Your task to perform on an android device: Open Amazon Image 0: 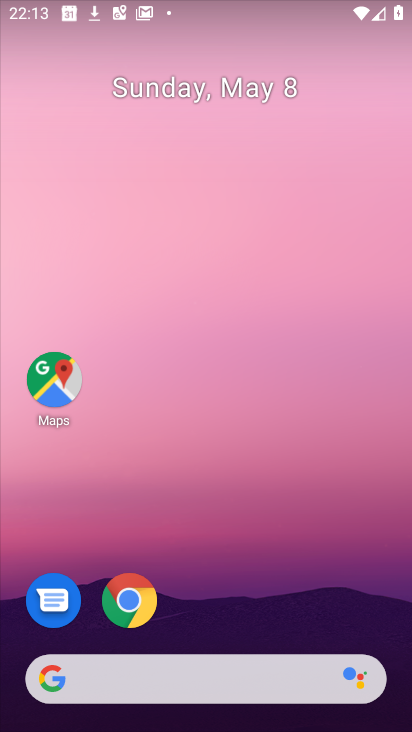
Step 0: drag from (248, 713) to (225, 216)
Your task to perform on an android device: Open Amazon Image 1: 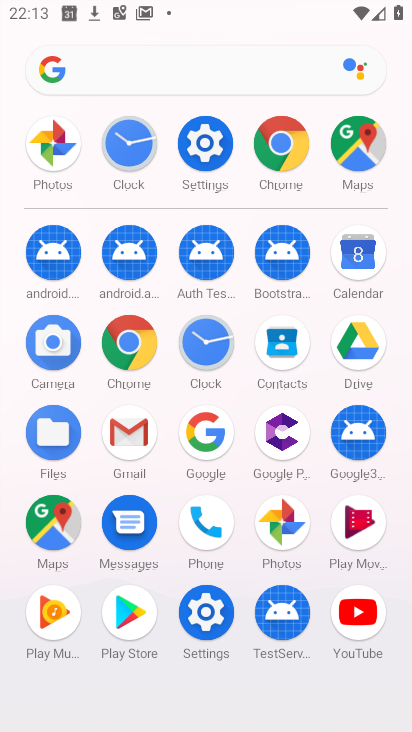
Step 1: click (289, 155)
Your task to perform on an android device: Open Amazon Image 2: 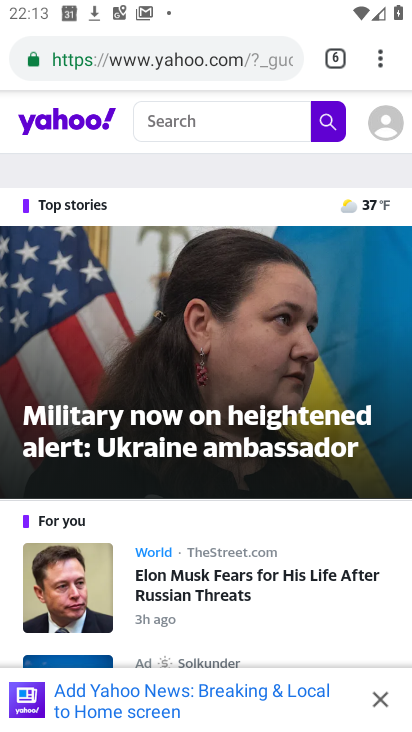
Step 2: click (337, 59)
Your task to perform on an android device: Open Amazon Image 3: 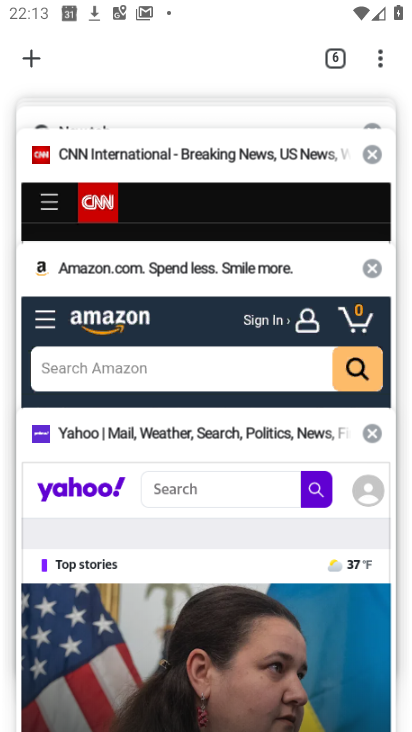
Step 3: click (35, 70)
Your task to perform on an android device: Open Amazon Image 4: 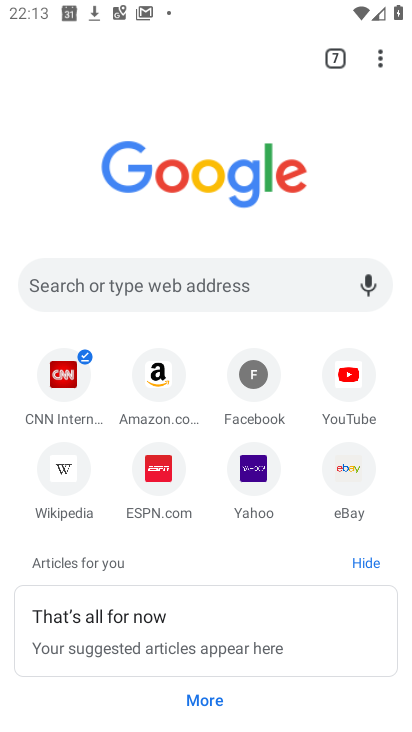
Step 4: click (161, 398)
Your task to perform on an android device: Open Amazon Image 5: 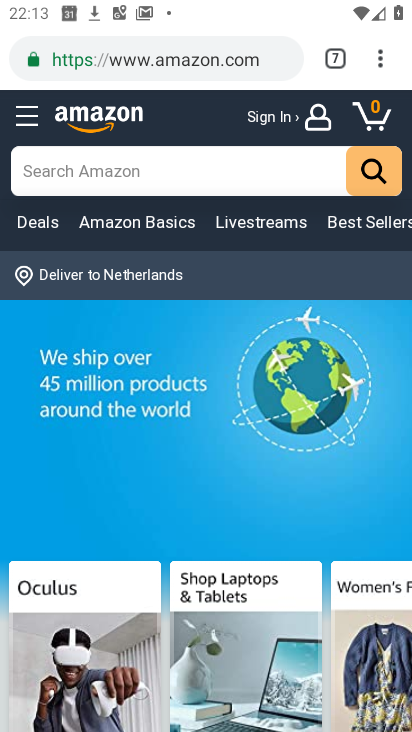
Step 5: task complete